Your task to perform on an android device: Clear all items from cart on target. Add "panasonic triple a" to the cart on target, then select checkout. Image 0: 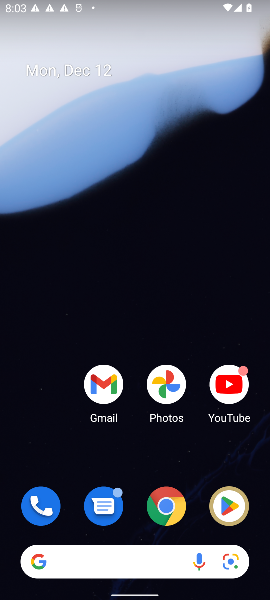
Step 0: click (106, 568)
Your task to perform on an android device: Clear all items from cart on target. Add "panasonic triple a" to the cart on target, then select checkout. Image 1: 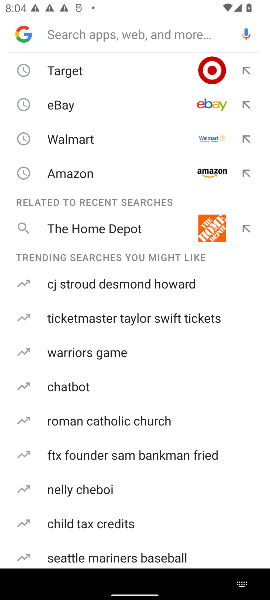
Step 1: click (85, 63)
Your task to perform on an android device: Clear all items from cart on target. Add "panasonic triple a" to the cart on target, then select checkout. Image 2: 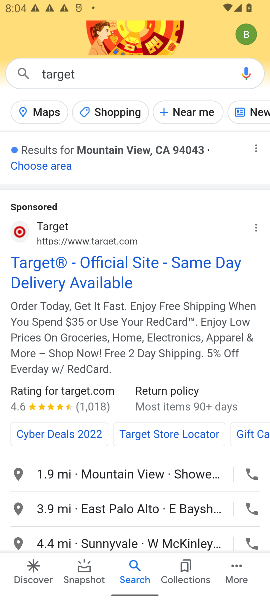
Step 2: click (80, 263)
Your task to perform on an android device: Clear all items from cart on target. Add "panasonic triple a" to the cart on target, then select checkout. Image 3: 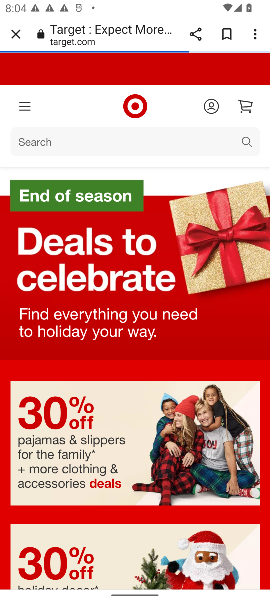
Step 3: click (66, 148)
Your task to perform on an android device: Clear all items from cart on target. Add "panasonic triple a" to the cart on target, then select checkout. Image 4: 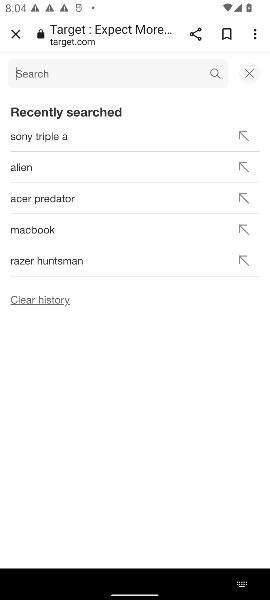
Step 4: type "panasonic triple a"
Your task to perform on an android device: Clear all items from cart on target. Add "panasonic triple a" to the cart on target, then select checkout. Image 5: 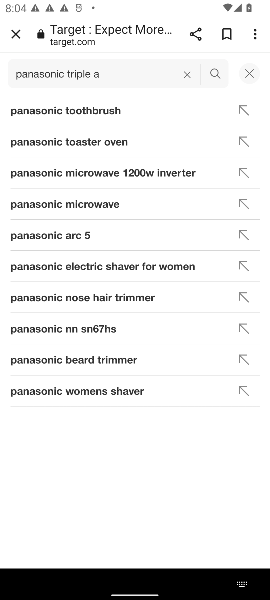
Step 5: click (208, 72)
Your task to perform on an android device: Clear all items from cart on target. Add "panasonic triple a" to the cart on target, then select checkout. Image 6: 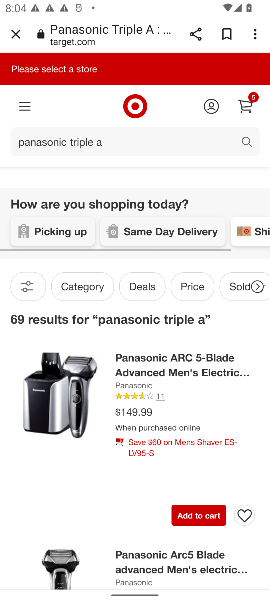
Step 6: click (211, 518)
Your task to perform on an android device: Clear all items from cart on target. Add "panasonic triple a" to the cart on target, then select checkout. Image 7: 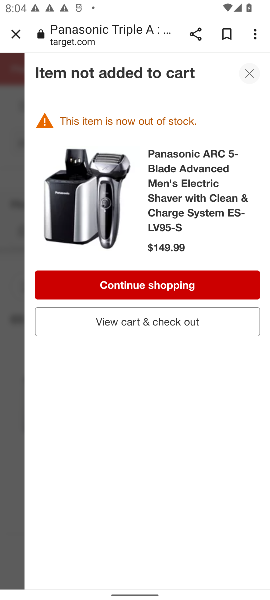
Step 7: task complete